Your task to perform on an android device: toggle improve location accuracy Image 0: 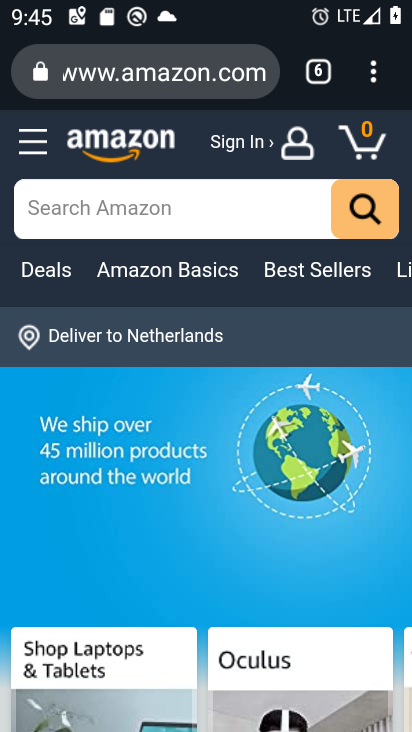
Step 0: press home button
Your task to perform on an android device: toggle improve location accuracy Image 1: 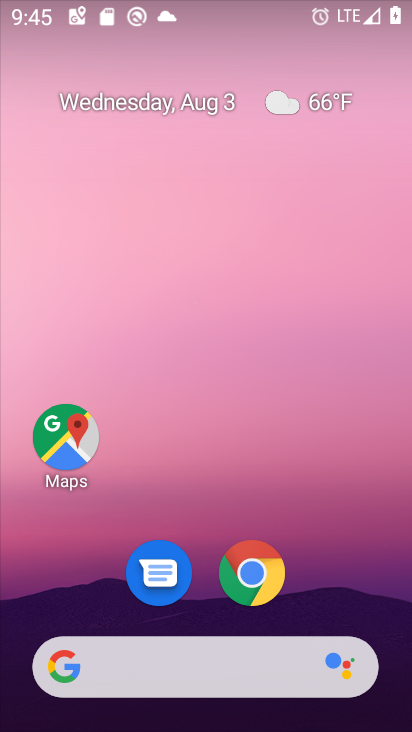
Step 1: drag from (314, 623) to (348, 69)
Your task to perform on an android device: toggle improve location accuracy Image 2: 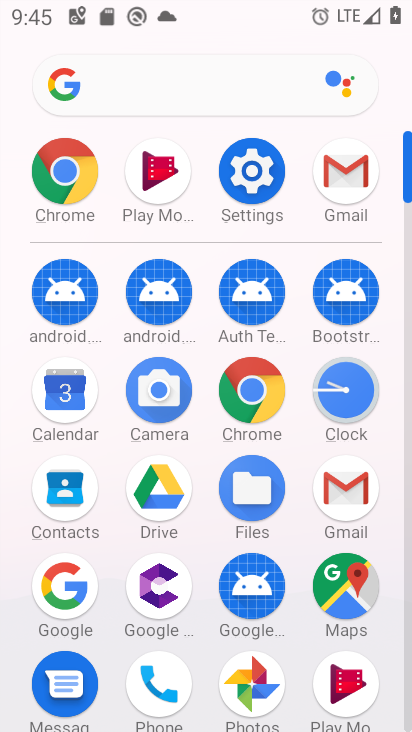
Step 2: click (242, 173)
Your task to perform on an android device: toggle improve location accuracy Image 3: 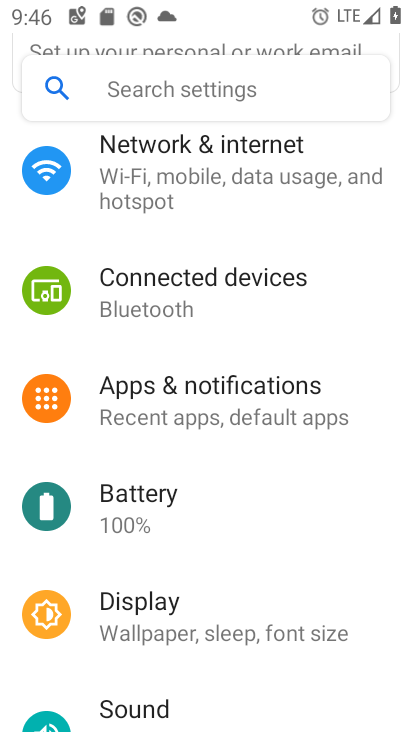
Step 3: drag from (335, 583) to (322, 162)
Your task to perform on an android device: toggle improve location accuracy Image 4: 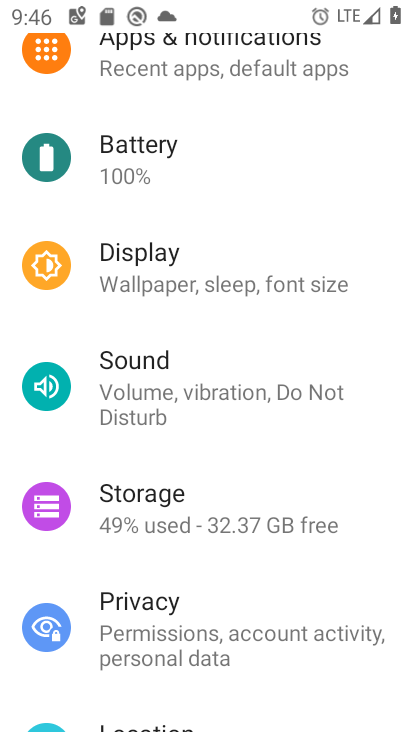
Step 4: drag from (289, 609) to (284, 215)
Your task to perform on an android device: toggle improve location accuracy Image 5: 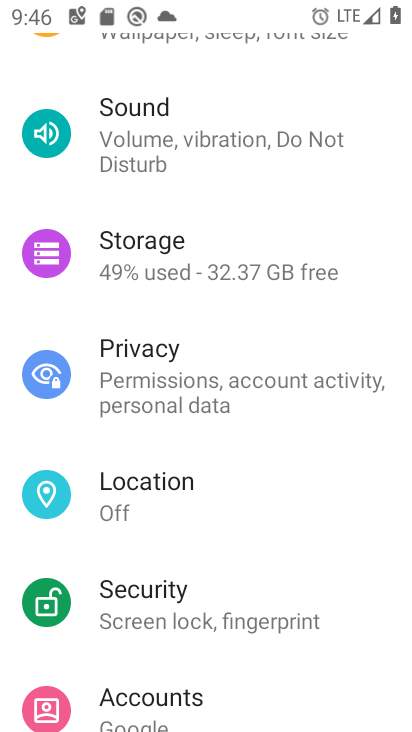
Step 5: click (127, 502)
Your task to perform on an android device: toggle improve location accuracy Image 6: 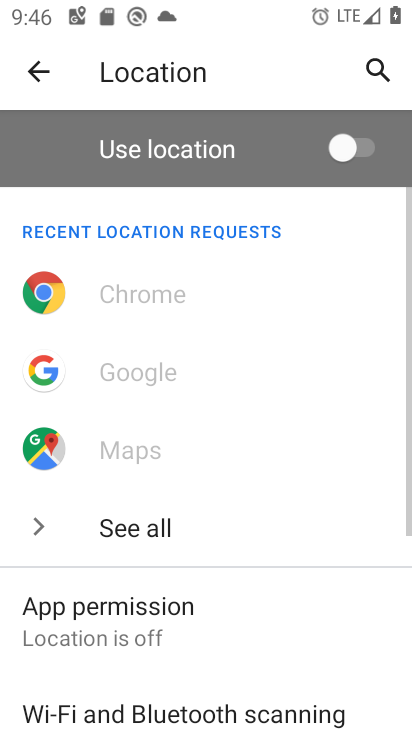
Step 6: drag from (290, 554) to (258, 148)
Your task to perform on an android device: toggle improve location accuracy Image 7: 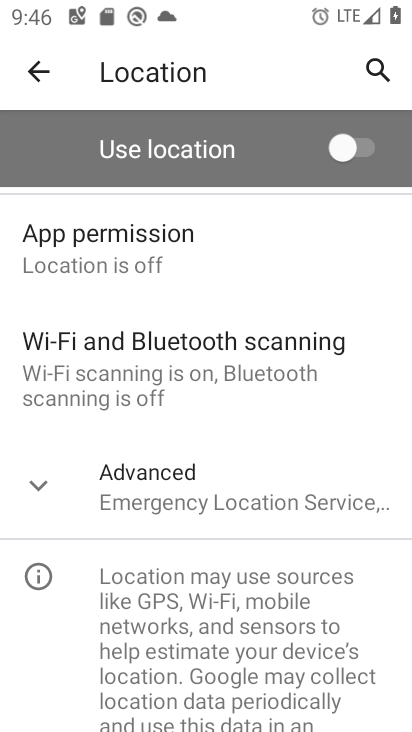
Step 7: click (44, 482)
Your task to perform on an android device: toggle improve location accuracy Image 8: 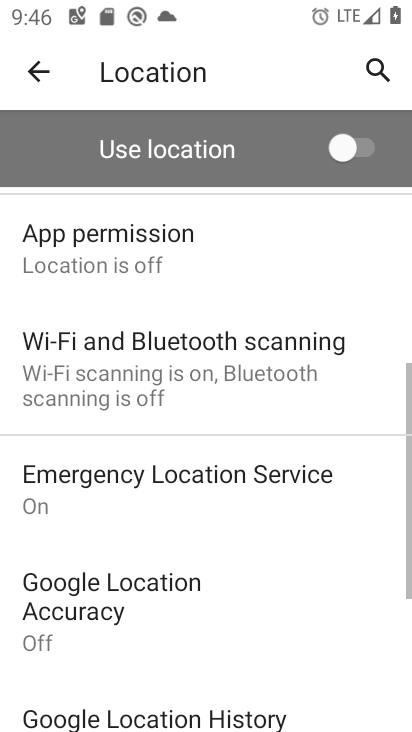
Step 8: drag from (242, 583) to (243, 337)
Your task to perform on an android device: toggle improve location accuracy Image 9: 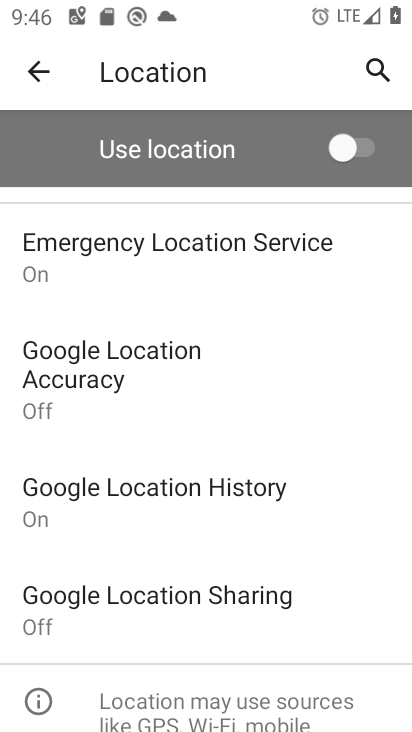
Step 9: click (79, 393)
Your task to perform on an android device: toggle improve location accuracy Image 10: 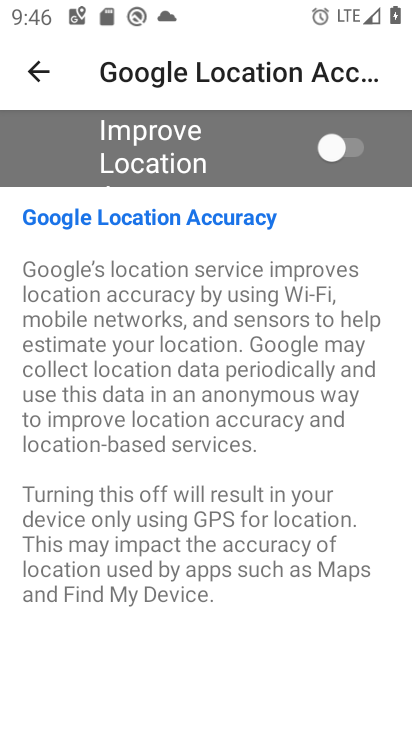
Step 10: click (351, 155)
Your task to perform on an android device: toggle improve location accuracy Image 11: 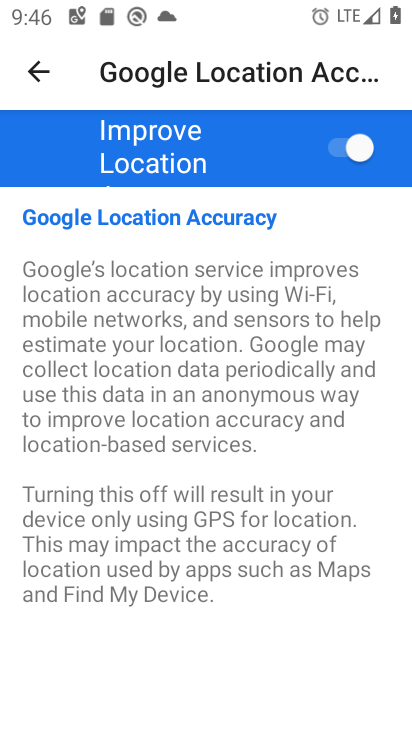
Step 11: task complete